Your task to perform on an android device: Open the calendar and show me this week's events? Image 0: 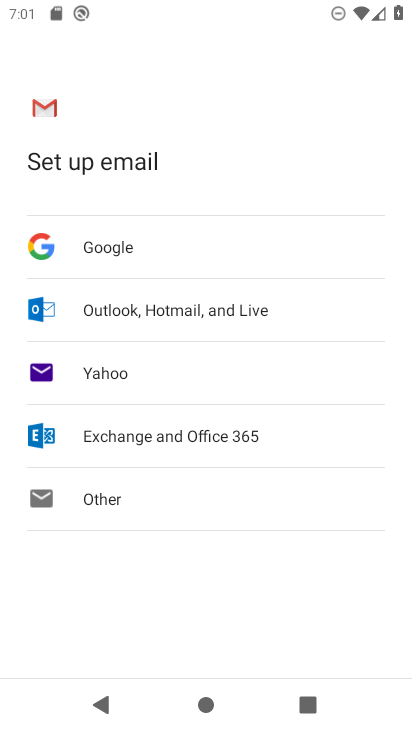
Step 0: press home button
Your task to perform on an android device: Open the calendar and show me this week's events? Image 1: 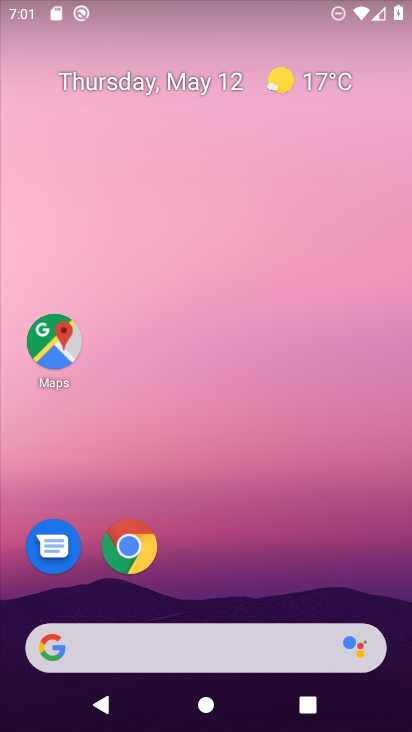
Step 1: drag from (272, 538) to (179, 82)
Your task to perform on an android device: Open the calendar and show me this week's events? Image 2: 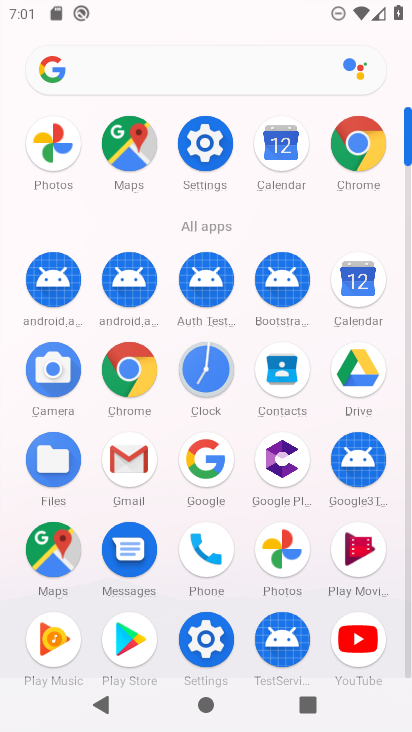
Step 2: click (361, 291)
Your task to perform on an android device: Open the calendar and show me this week's events? Image 3: 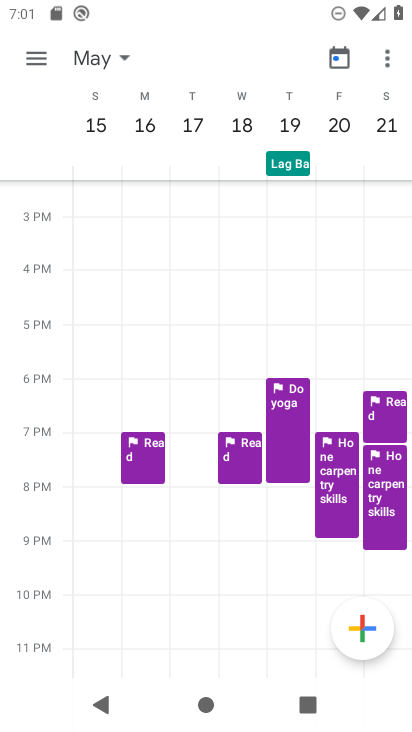
Step 3: click (120, 56)
Your task to perform on an android device: Open the calendar and show me this week's events? Image 4: 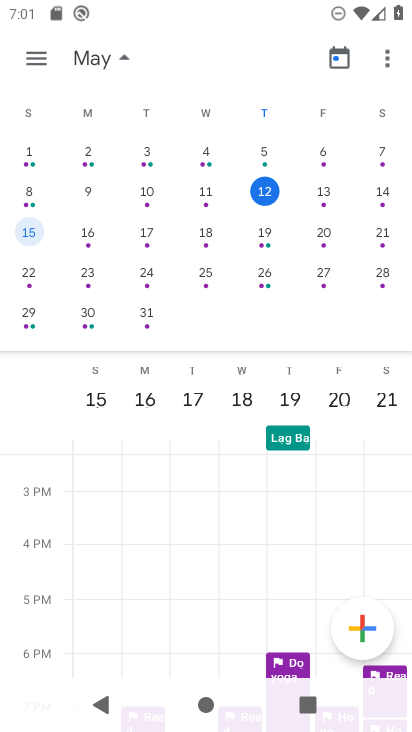
Step 4: click (265, 195)
Your task to perform on an android device: Open the calendar and show me this week's events? Image 5: 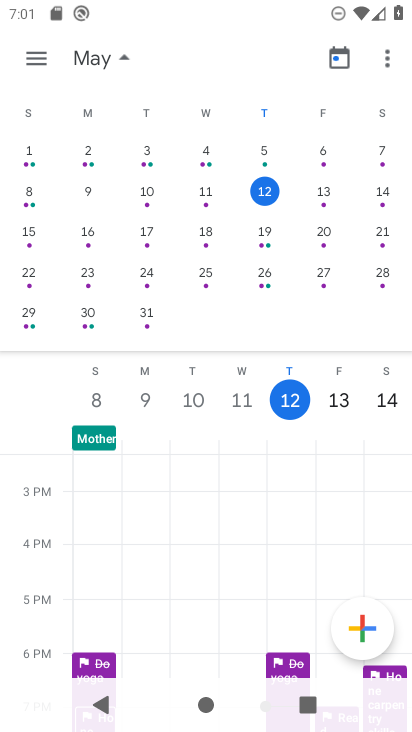
Step 5: task complete